Your task to perform on an android device: Go to display settings Image 0: 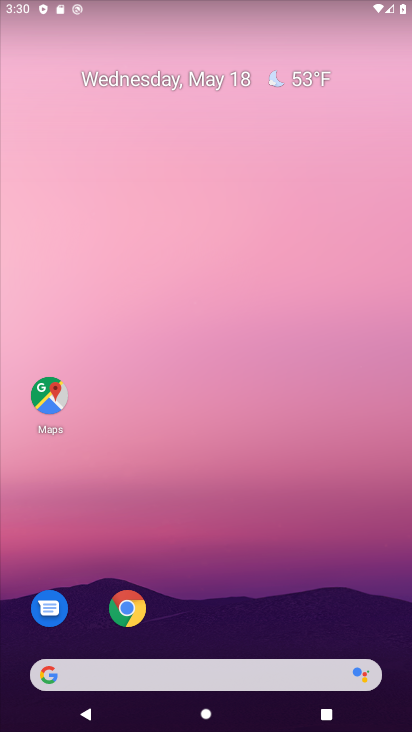
Step 0: drag from (282, 674) to (232, 56)
Your task to perform on an android device: Go to display settings Image 1: 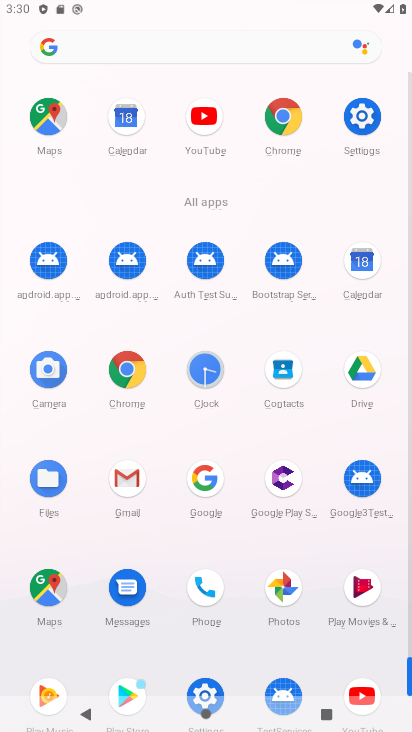
Step 1: click (358, 128)
Your task to perform on an android device: Go to display settings Image 2: 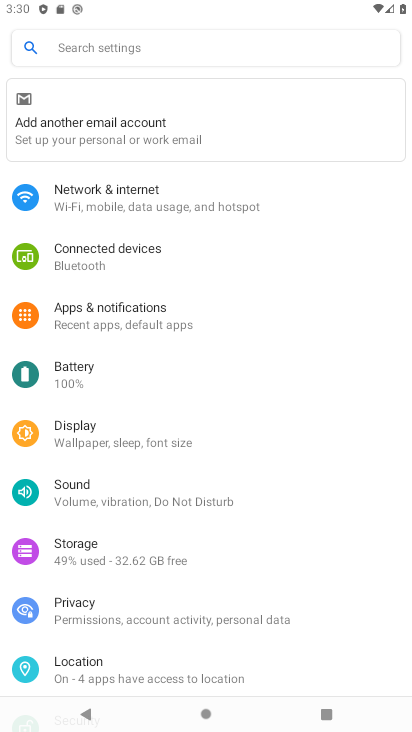
Step 2: click (201, 443)
Your task to perform on an android device: Go to display settings Image 3: 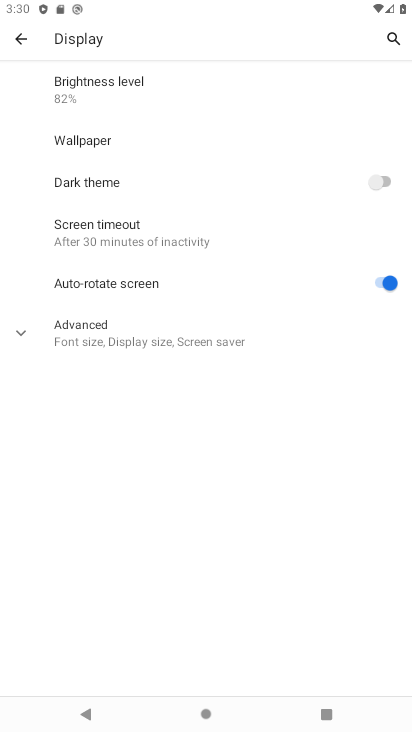
Step 3: task complete